Your task to perform on an android device: Do I have any events tomorrow? Image 0: 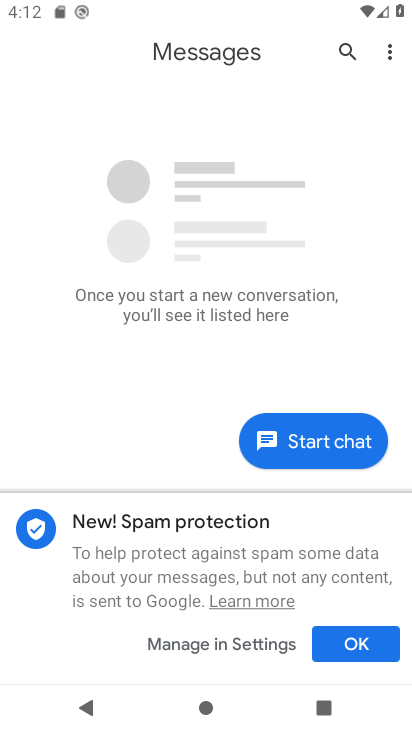
Step 0: press home button
Your task to perform on an android device: Do I have any events tomorrow? Image 1: 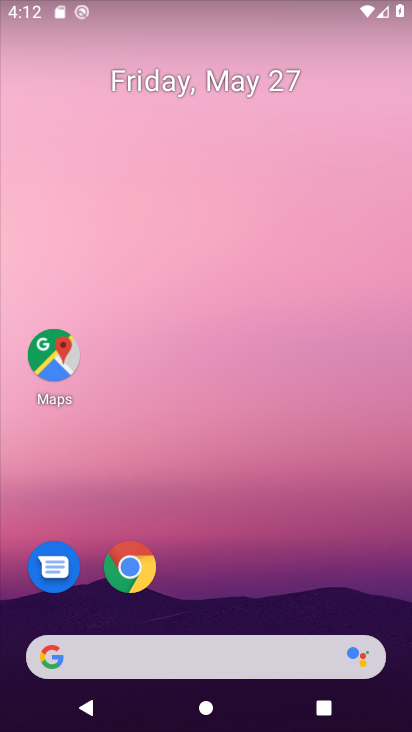
Step 1: drag from (232, 595) to (284, 6)
Your task to perform on an android device: Do I have any events tomorrow? Image 2: 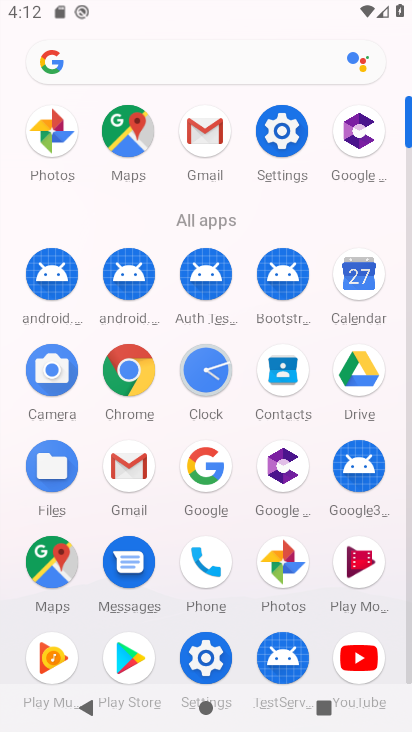
Step 2: click (363, 279)
Your task to perform on an android device: Do I have any events tomorrow? Image 3: 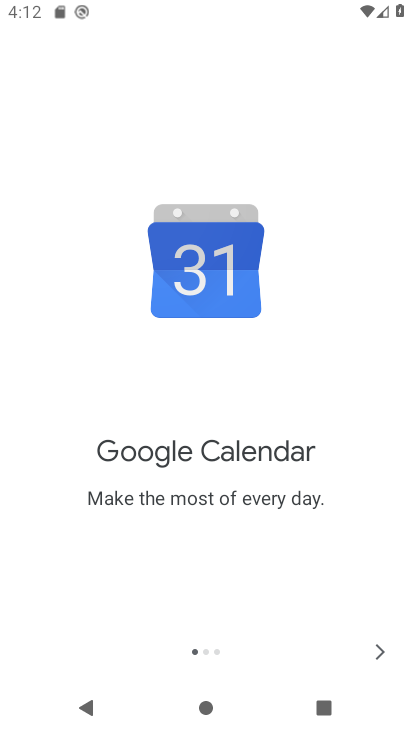
Step 3: click (379, 645)
Your task to perform on an android device: Do I have any events tomorrow? Image 4: 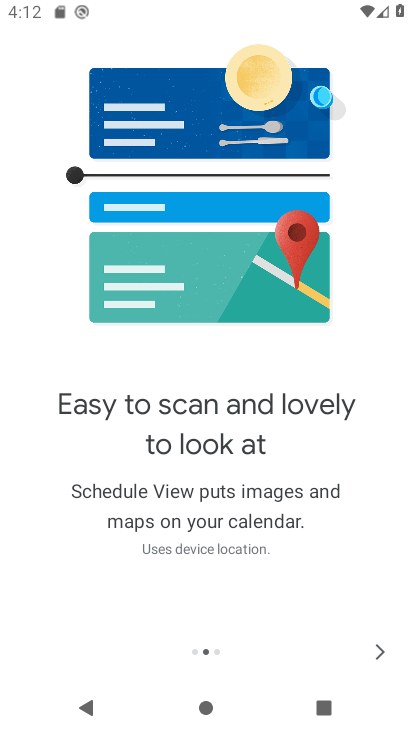
Step 4: click (380, 647)
Your task to perform on an android device: Do I have any events tomorrow? Image 5: 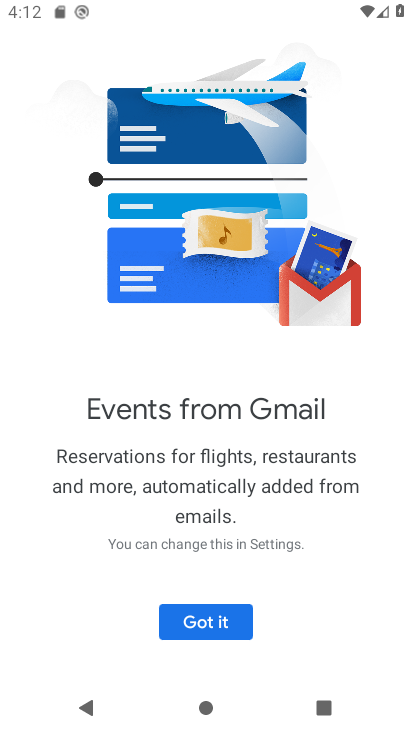
Step 5: click (201, 621)
Your task to perform on an android device: Do I have any events tomorrow? Image 6: 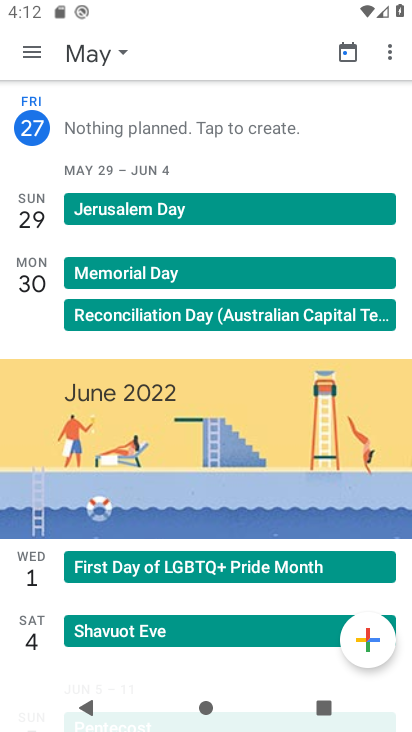
Step 6: click (97, 59)
Your task to perform on an android device: Do I have any events tomorrow? Image 7: 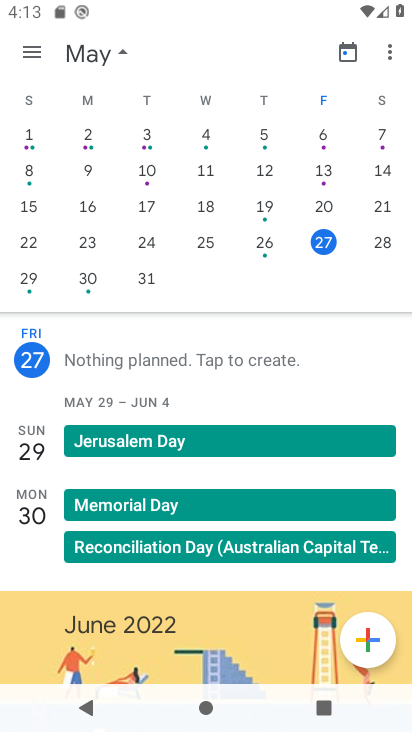
Step 7: click (382, 244)
Your task to perform on an android device: Do I have any events tomorrow? Image 8: 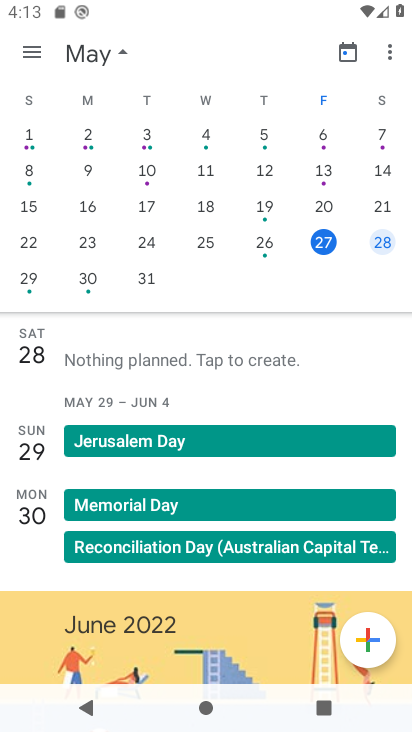
Step 8: task complete